Your task to perform on an android device: search for starred emails in the gmail app Image 0: 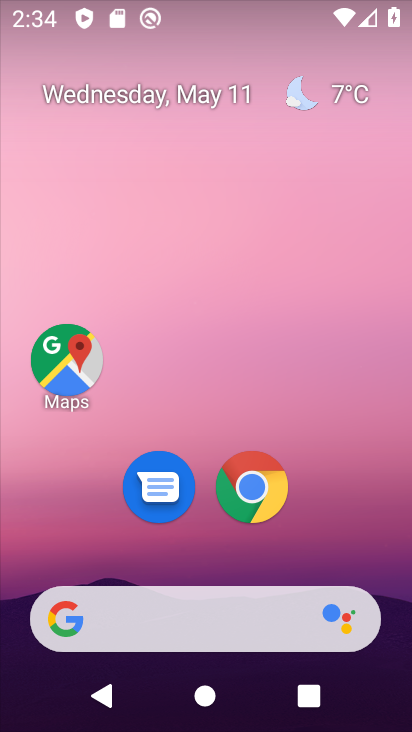
Step 0: drag from (286, 565) to (311, 0)
Your task to perform on an android device: search for starred emails in the gmail app Image 1: 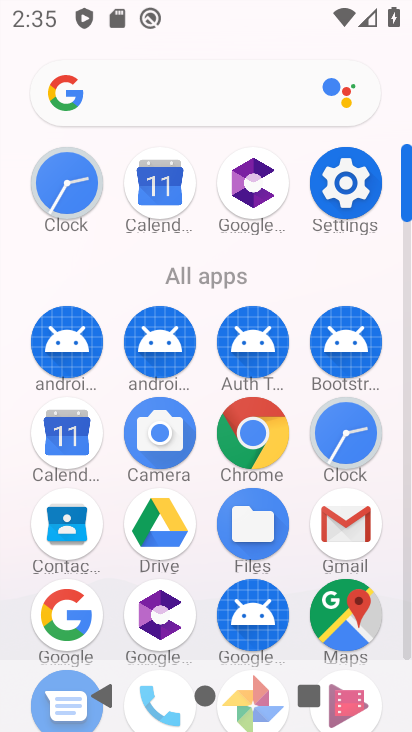
Step 1: click (333, 532)
Your task to perform on an android device: search for starred emails in the gmail app Image 2: 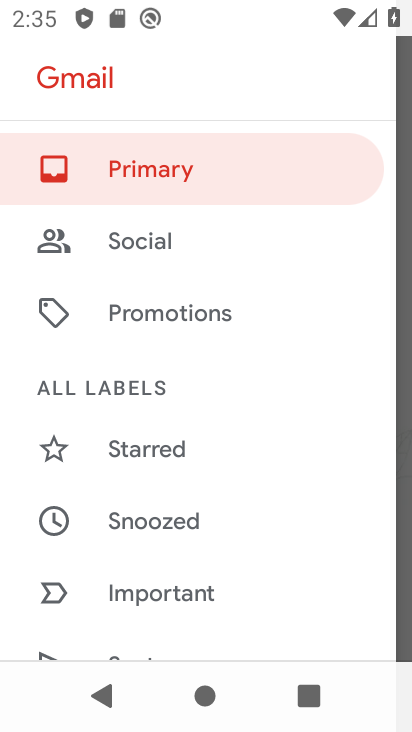
Step 2: drag from (324, 650) to (291, 290)
Your task to perform on an android device: search for starred emails in the gmail app Image 3: 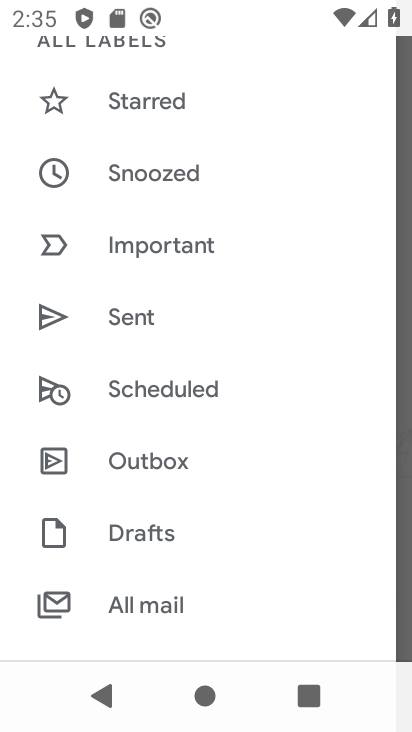
Step 3: click (183, 96)
Your task to perform on an android device: search for starred emails in the gmail app Image 4: 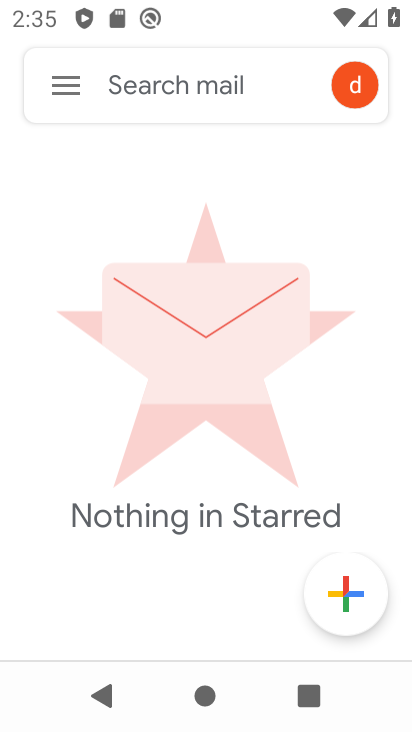
Step 4: task complete